Your task to perform on an android device: Search for sushi restaurants on Maps Image 0: 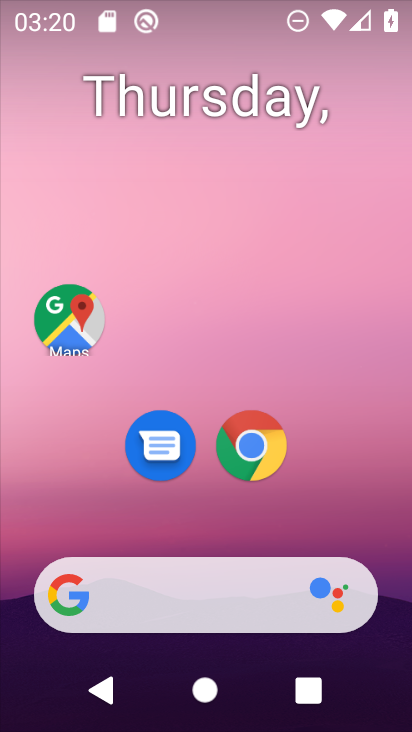
Step 0: click (68, 324)
Your task to perform on an android device: Search for sushi restaurants on Maps Image 1: 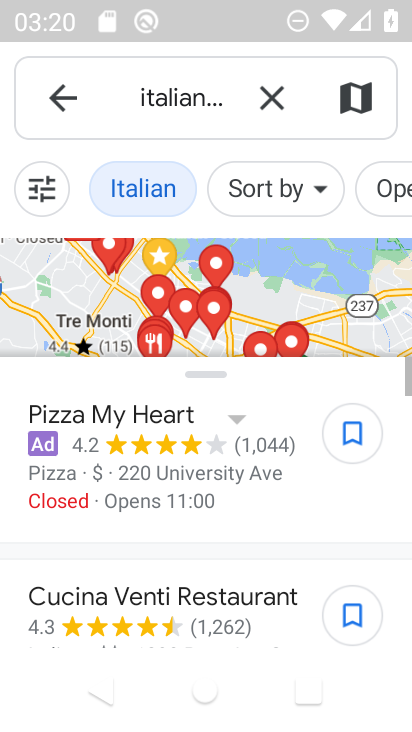
Step 1: click (260, 110)
Your task to perform on an android device: Search for sushi restaurants on Maps Image 2: 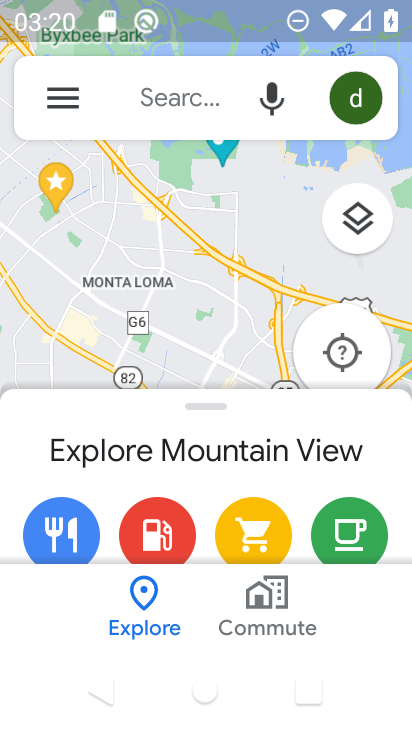
Step 2: click (149, 99)
Your task to perform on an android device: Search for sushi restaurants on Maps Image 3: 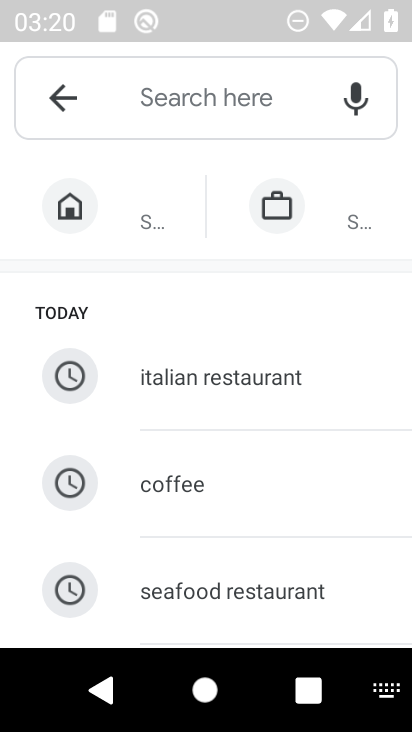
Step 3: type "sushi restaurants"
Your task to perform on an android device: Search for sushi restaurants on Maps Image 4: 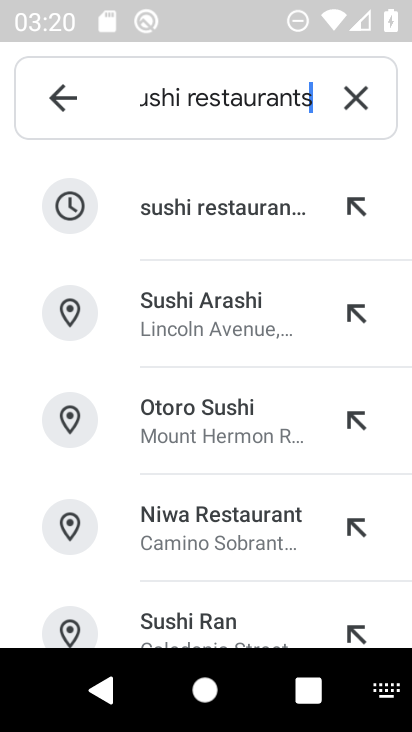
Step 4: click (205, 214)
Your task to perform on an android device: Search for sushi restaurants on Maps Image 5: 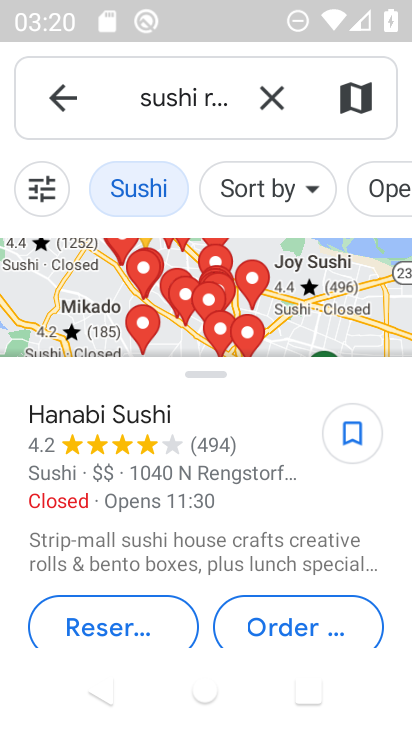
Step 5: task complete